Your task to perform on an android device: Open settings Image 0: 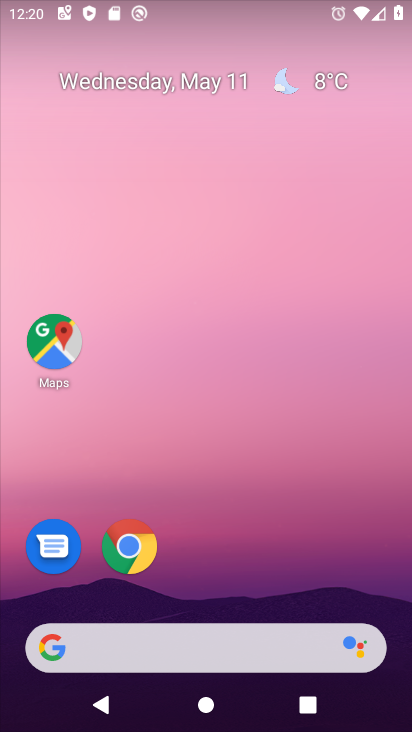
Step 0: drag from (195, 640) to (318, 118)
Your task to perform on an android device: Open settings Image 1: 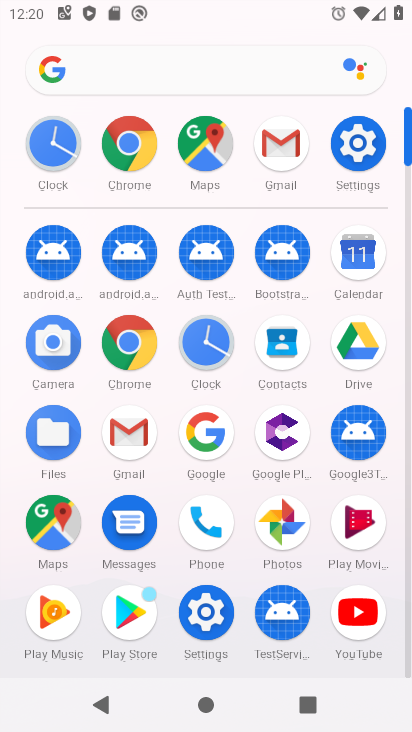
Step 1: click (350, 158)
Your task to perform on an android device: Open settings Image 2: 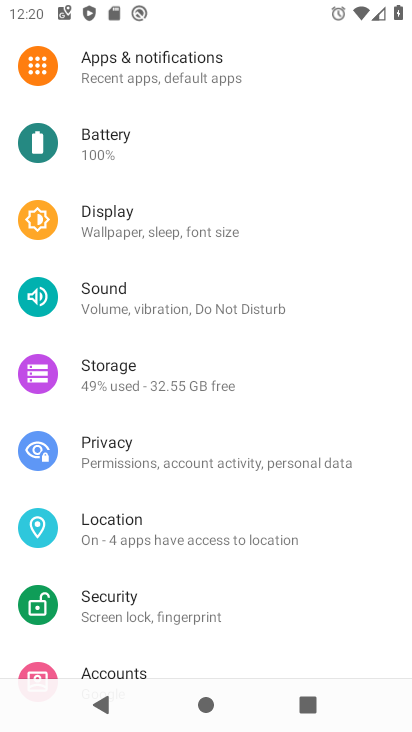
Step 2: task complete